Your task to perform on an android device: Open Google Chrome and click the shortcut for Amazon.com Image 0: 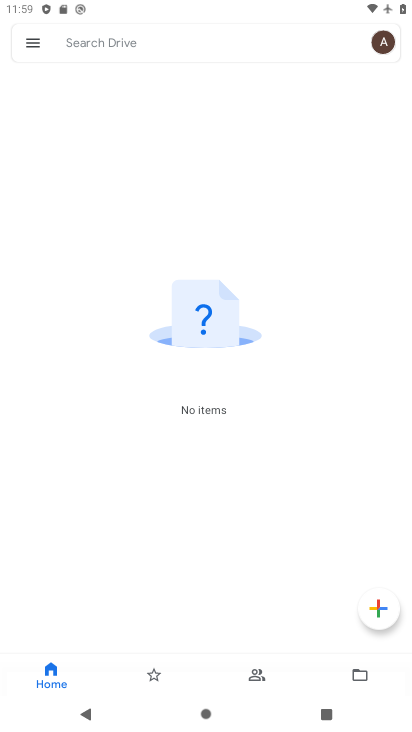
Step 0: press home button
Your task to perform on an android device: Open Google Chrome and click the shortcut for Amazon.com Image 1: 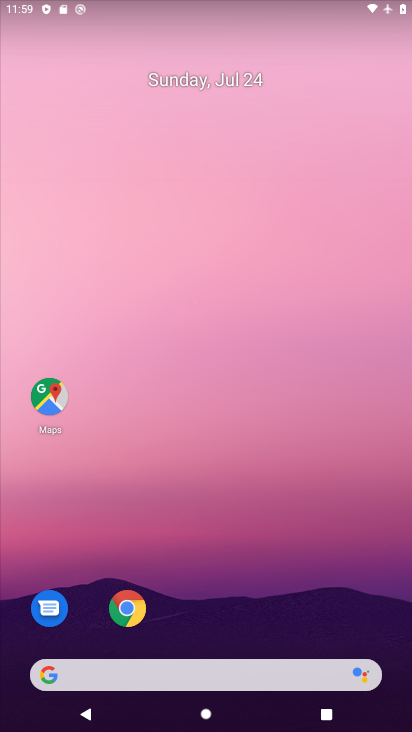
Step 1: drag from (173, 635) to (106, 19)
Your task to perform on an android device: Open Google Chrome and click the shortcut for Amazon.com Image 2: 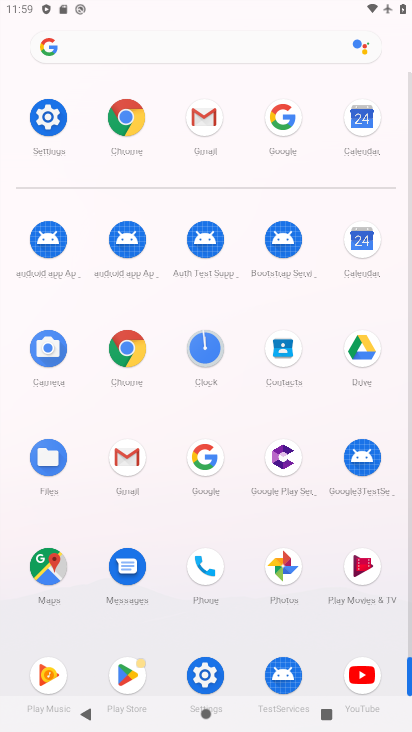
Step 2: click (125, 351)
Your task to perform on an android device: Open Google Chrome and click the shortcut for Amazon.com Image 3: 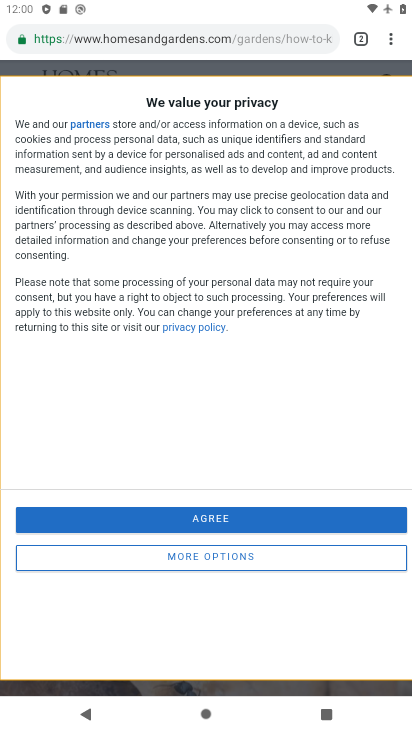
Step 3: drag from (363, 44) to (366, 157)
Your task to perform on an android device: Open Google Chrome and click the shortcut for Amazon.com Image 4: 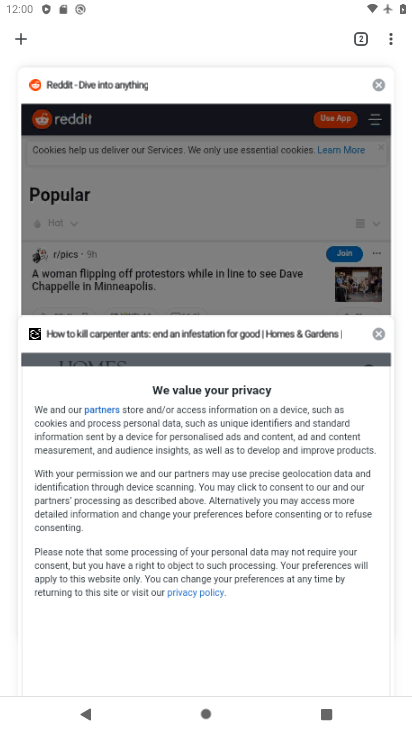
Step 4: click (23, 45)
Your task to perform on an android device: Open Google Chrome and click the shortcut for Amazon.com Image 5: 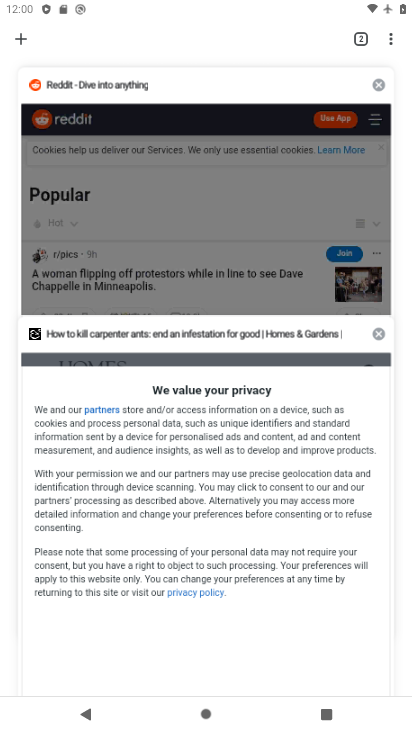
Step 5: click (18, 37)
Your task to perform on an android device: Open Google Chrome and click the shortcut for Amazon.com Image 6: 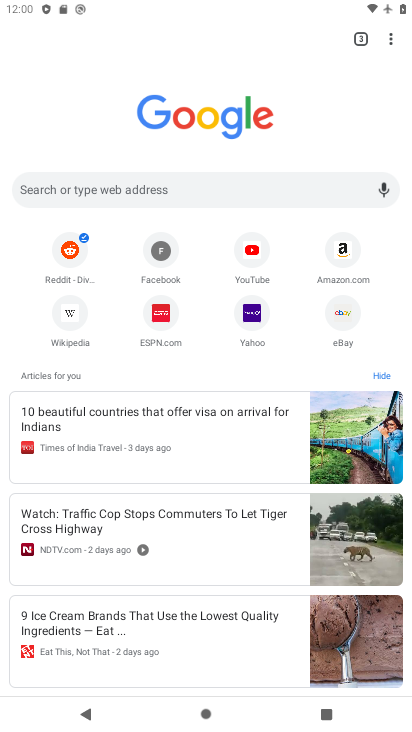
Step 6: click (334, 271)
Your task to perform on an android device: Open Google Chrome and click the shortcut for Amazon.com Image 7: 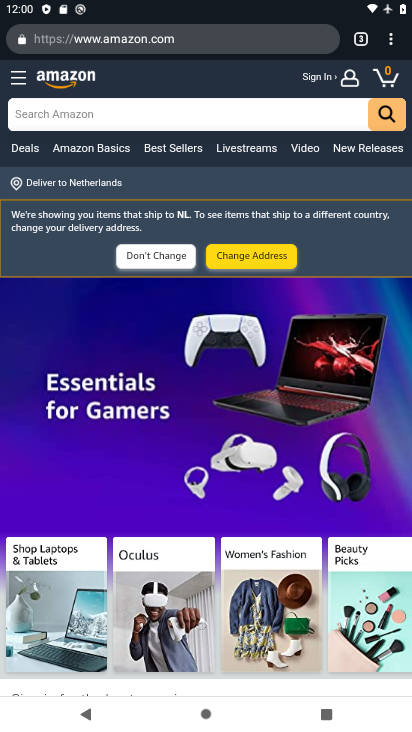
Step 7: task complete